Your task to perform on an android device: turn on airplane mode Image 0: 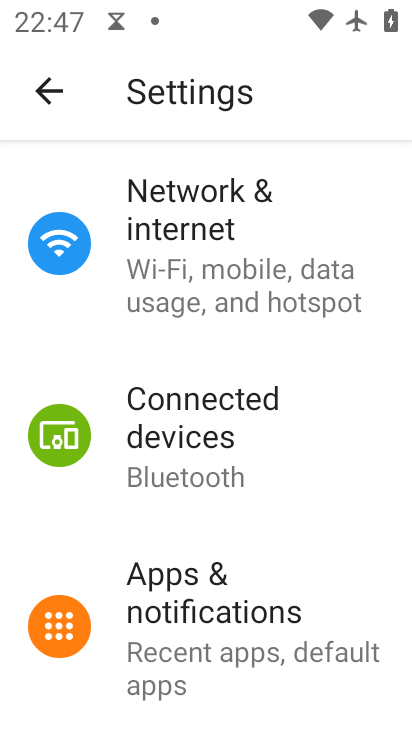
Step 0: click (192, 254)
Your task to perform on an android device: turn on airplane mode Image 1: 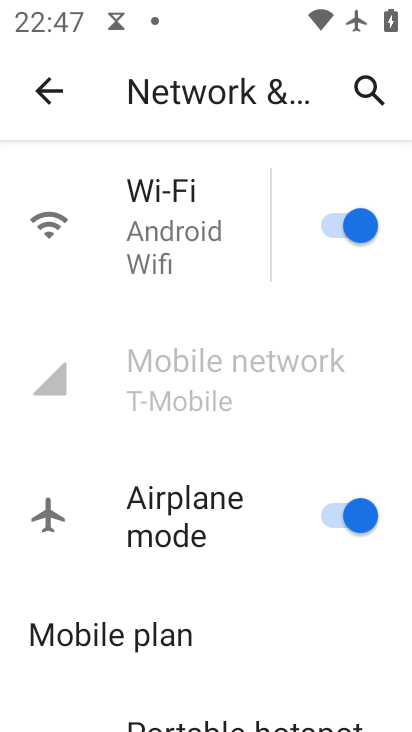
Step 1: task complete